Your task to perform on an android device: turn pop-ups off in chrome Image 0: 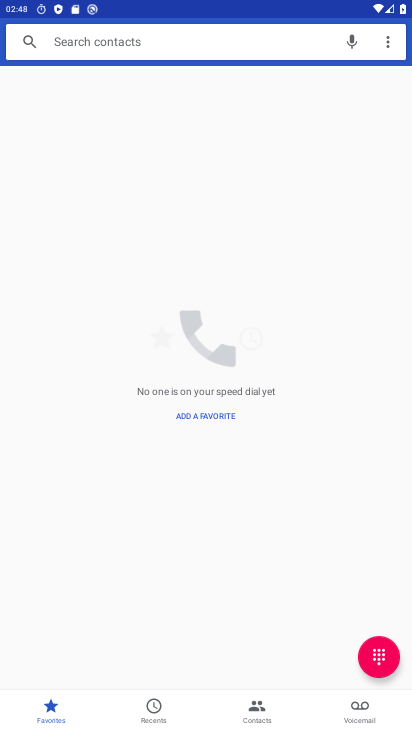
Step 0: press back button
Your task to perform on an android device: turn pop-ups off in chrome Image 1: 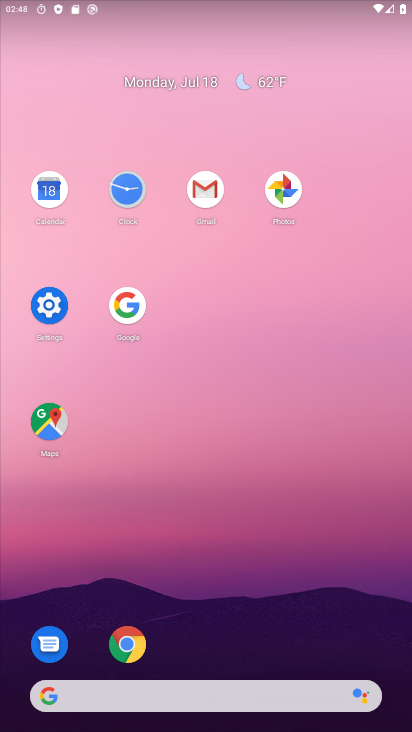
Step 1: click (136, 644)
Your task to perform on an android device: turn pop-ups off in chrome Image 2: 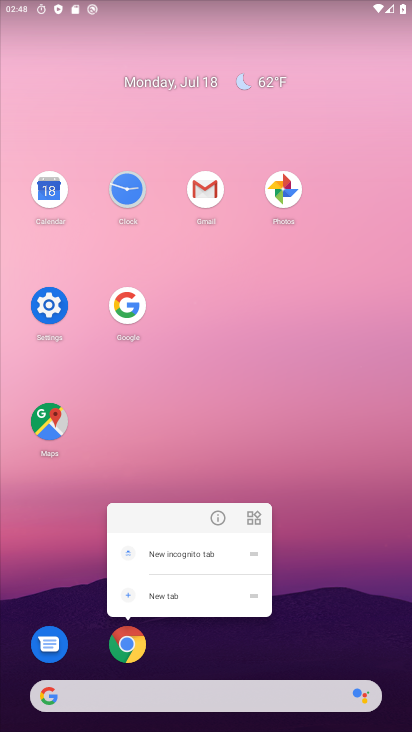
Step 2: click (133, 642)
Your task to perform on an android device: turn pop-ups off in chrome Image 3: 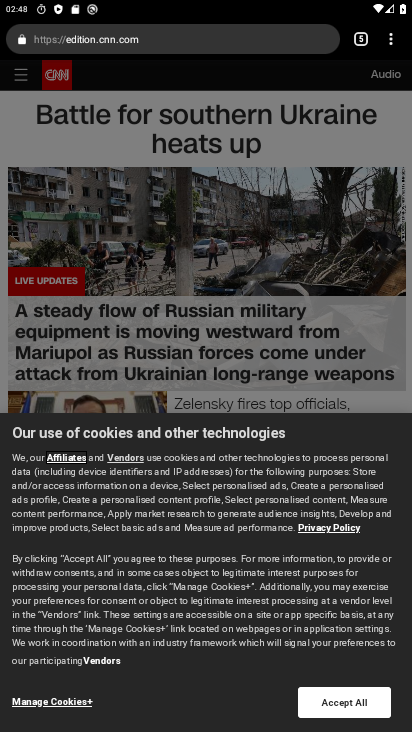
Step 3: click (397, 39)
Your task to perform on an android device: turn pop-ups off in chrome Image 4: 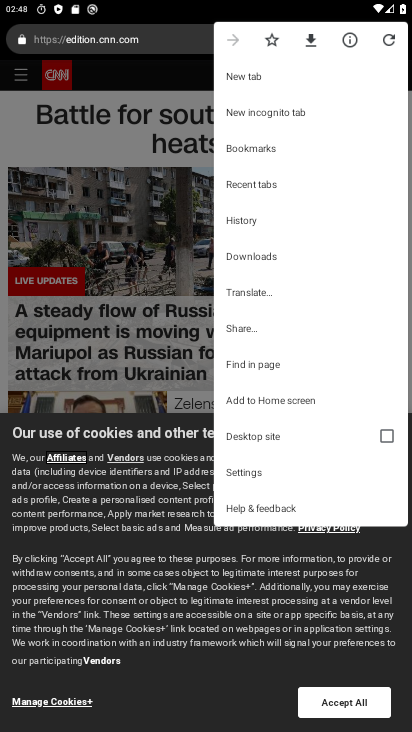
Step 4: click (259, 473)
Your task to perform on an android device: turn pop-ups off in chrome Image 5: 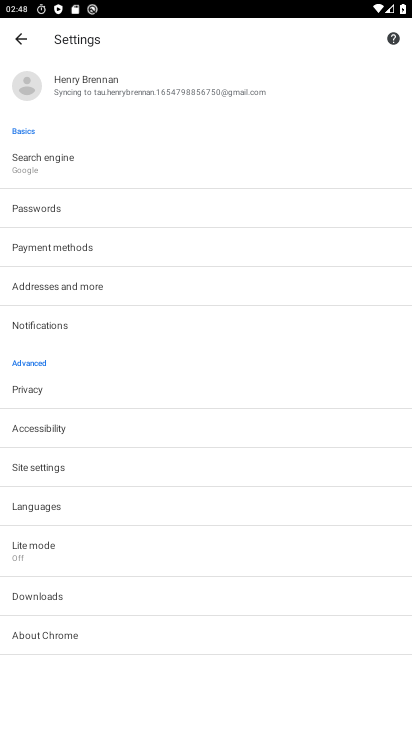
Step 5: drag from (150, 530) to (172, 211)
Your task to perform on an android device: turn pop-ups off in chrome Image 6: 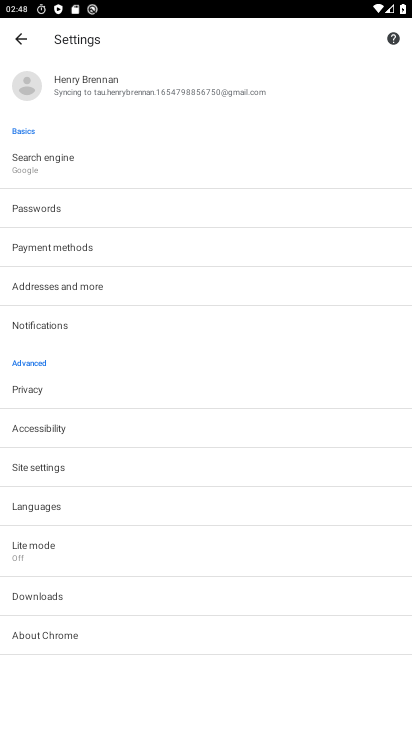
Step 6: click (80, 465)
Your task to perform on an android device: turn pop-ups off in chrome Image 7: 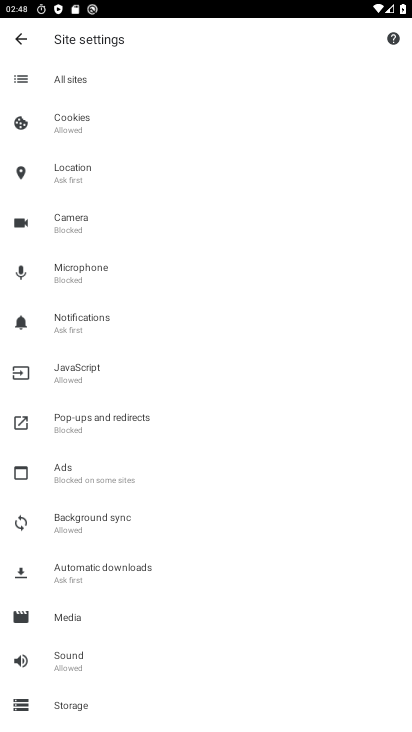
Step 7: click (190, 429)
Your task to perform on an android device: turn pop-ups off in chrome Image 8: 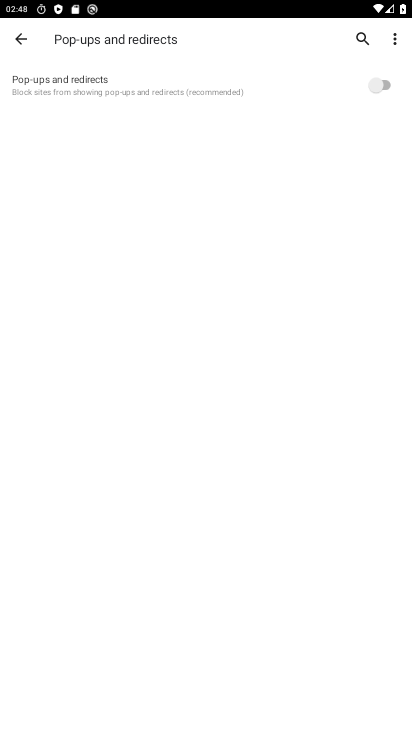
Step 8: task complete